Your task to perform on an android device: toggle location history Image 0: 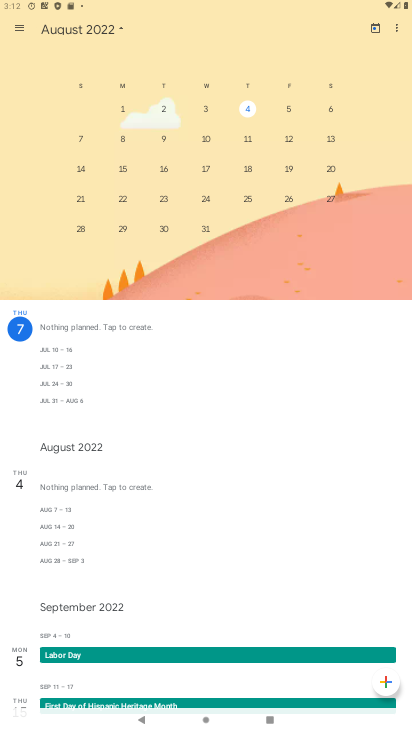
Step 0: press home button
Your task to perform on an android device: toggle location history Image 1: 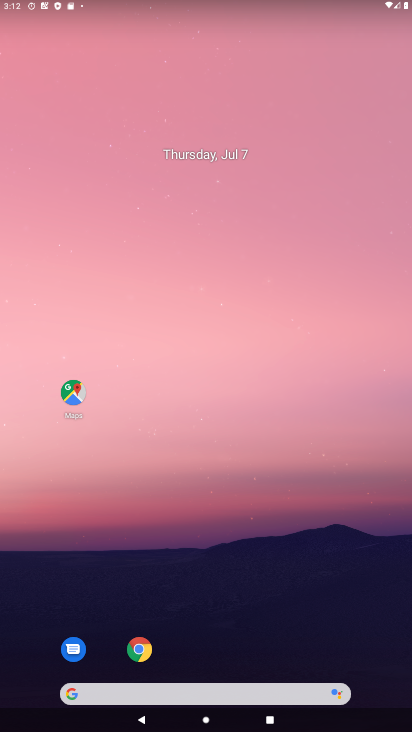
Step 1: drag from (251, 689) to (256, 3)
Your task to perform on an android device: toggle location history Image 2: 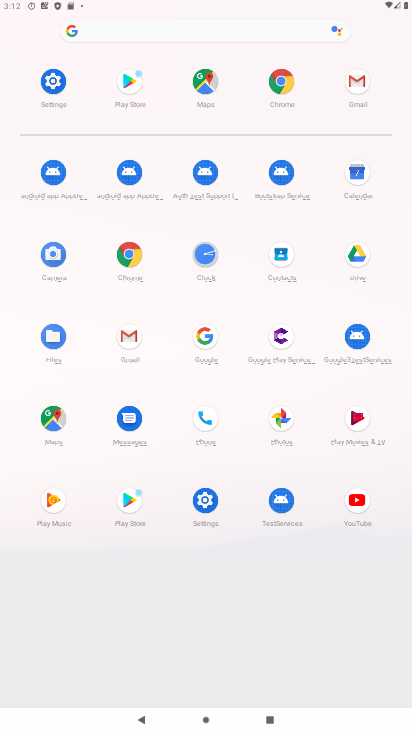
Step 2: click (208, 503)
Your task to perform on an android device: toggle location history Image 3: 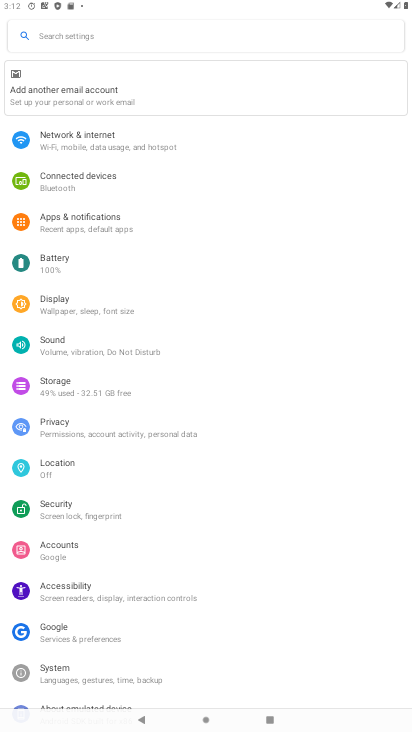
Step 3: click (91, 470)
Your task to perform on an android device: toggle location history Image 4: 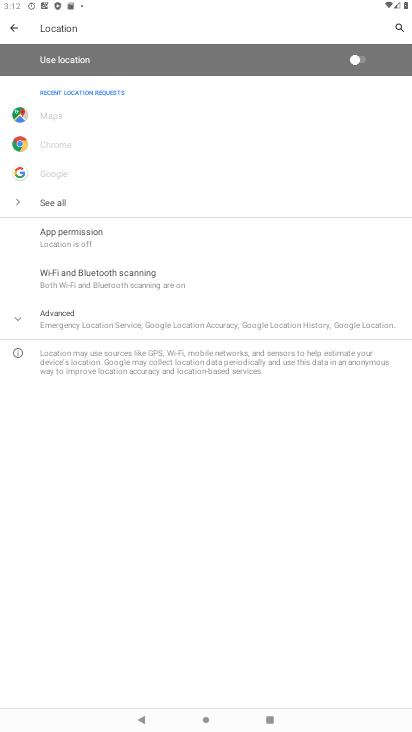
Step 4: click (65, 316)
Your task to perform on an android device: toggle location history Image 5: 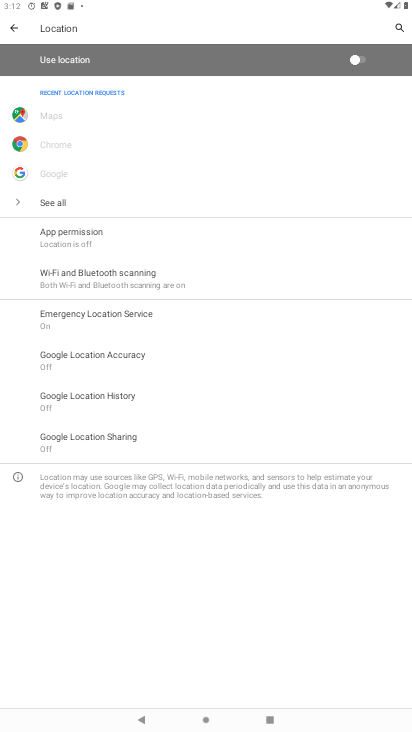
Step 5: click (111, 398)
Your task to perform on an android device: toggle location history Image 6: 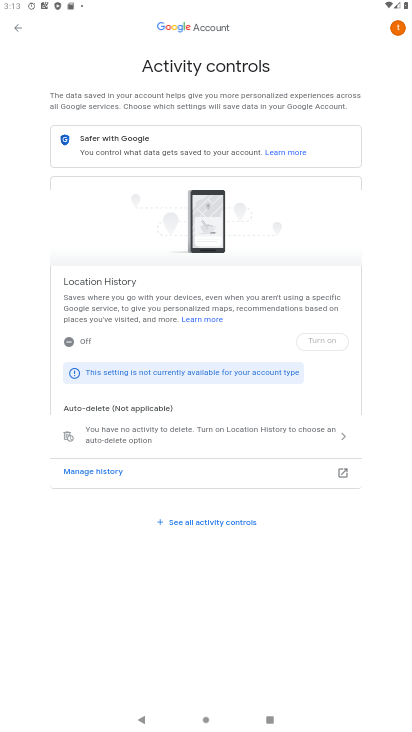
Step 6: click (92, 469)
Your task to perform on an android device: toggle location history Image 7: 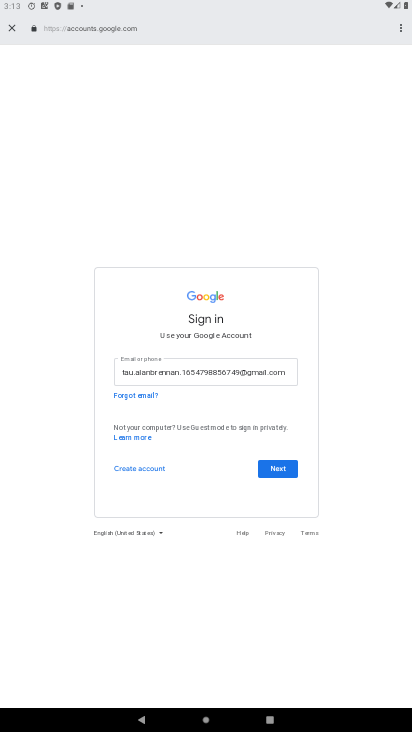
Step 7: press back button
Your task to perform on an android device: toggle location history Image 8: 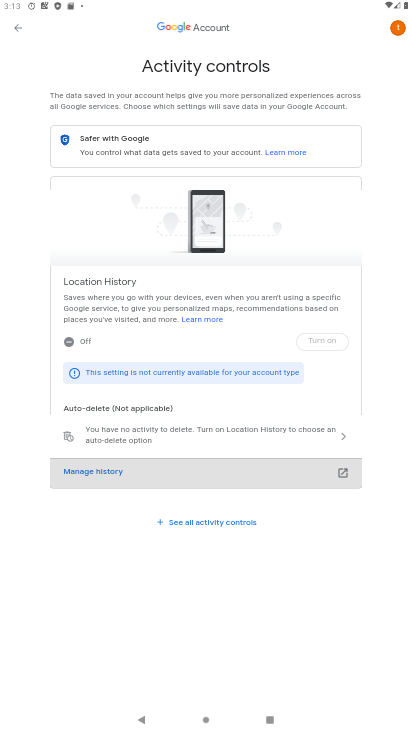
Step 8: click (339, 344)
Your task to perform on an android device: toggle location history Image 9: 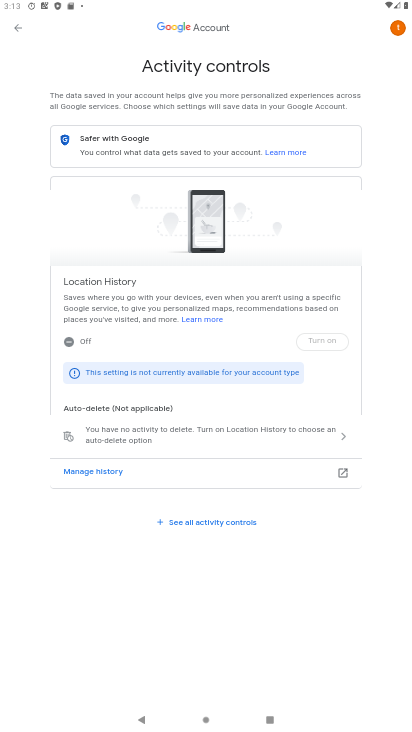
Step 9: task complete